Your task to perform on an android device: turn pop-ups on in chrome Image 0: 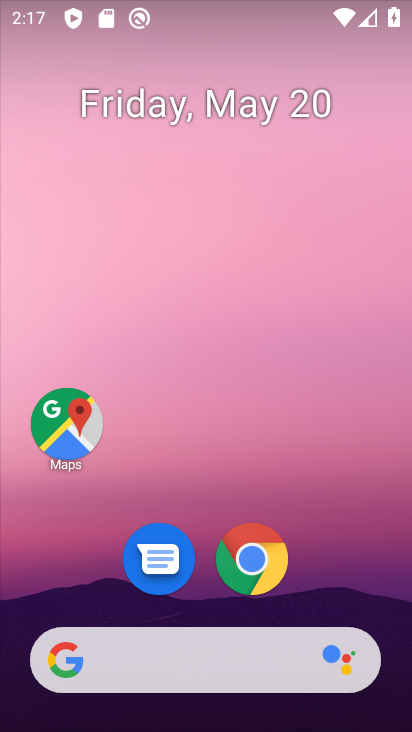
Step 0: click (250, 550)
Your task to perform on an android device: turn pop-ups on in chrome Image 1: 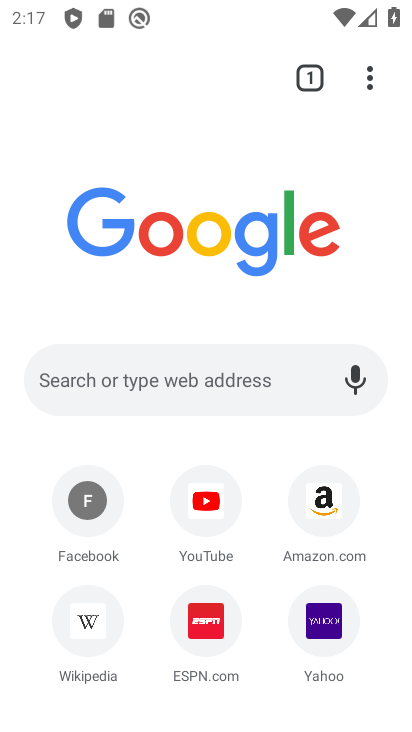
Step 1: click (371, 86)
Your task to perform on an android device: turn pop-ups on in chrome Image 2: 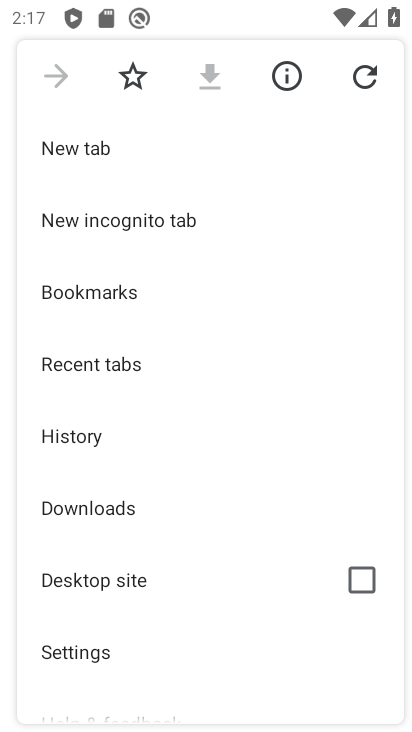
Step 2: click (109, 646)
Your task to perform on an android device: turn pop-ups on in chrome Image 3: 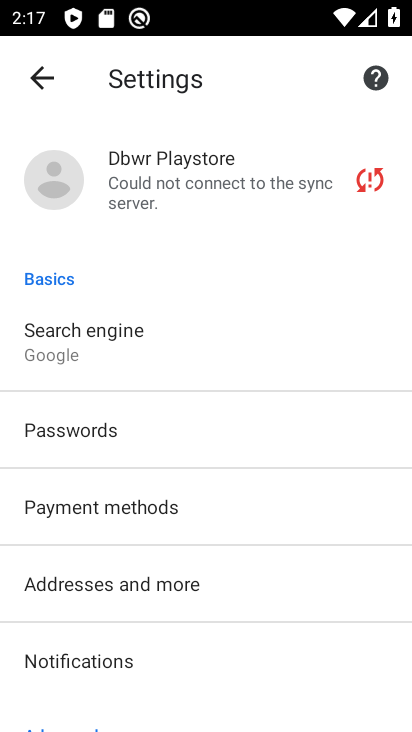
Step 3: drag from (314, 610) to (293, 391)
Your task to perform on an android device: turn pop-ups on in chrome Image 4: 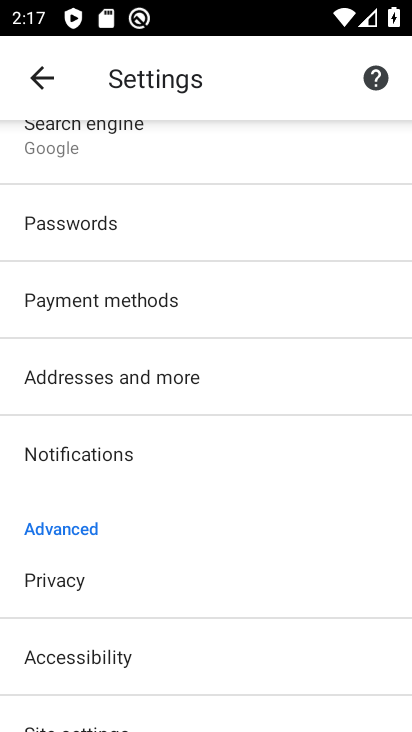
Step 4: drag from (208, 614) to (208, 328)
Your task to perform on an android device: turn pop-ups on in chrome Image 5: 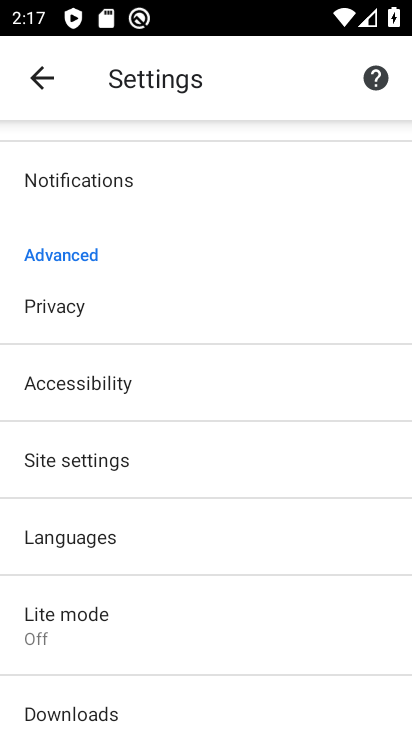
Step 5: drag from (208, 553) to (223, 353)
Your task to perform on an android device: turn pop-ups on in chrome Image 6: 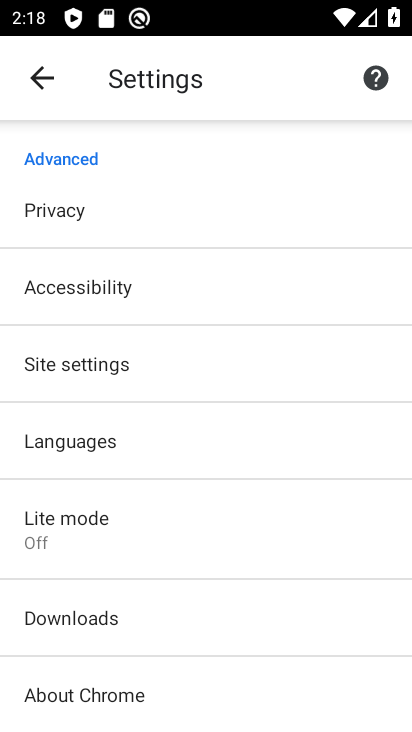
Step 6: click (223, 354)
Your task to perform on an android device: turn pop-ups on in chrome Image 7: 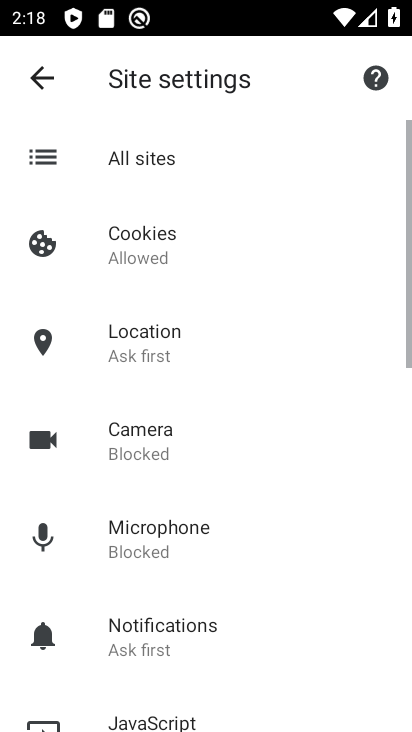
Step 7: drag from (242, 512) to (251, 222)
Your task to perform on an android device: turn pop-ups on in chrome Image 8: 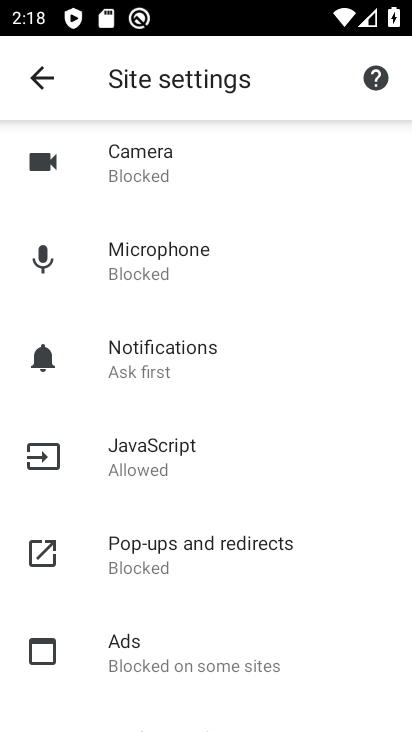
Step 8: click (229, 550)
Your task to perform on an android device: turn pop-ups on in chrome Image 9: 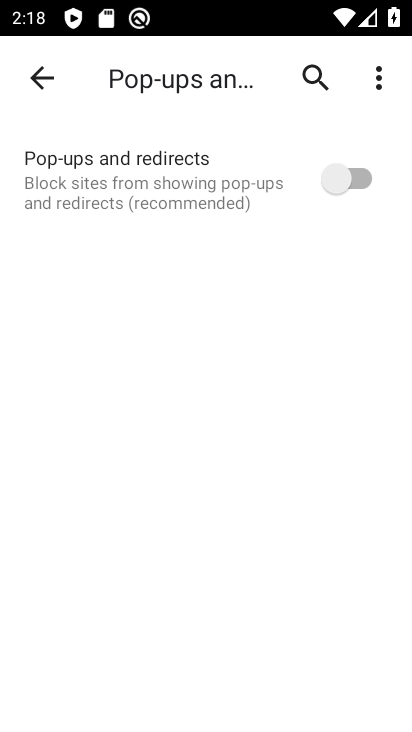
Step 9: click (349, 178)
Your task to perform on an android device: turn pop-ups on in chrome Image 10: 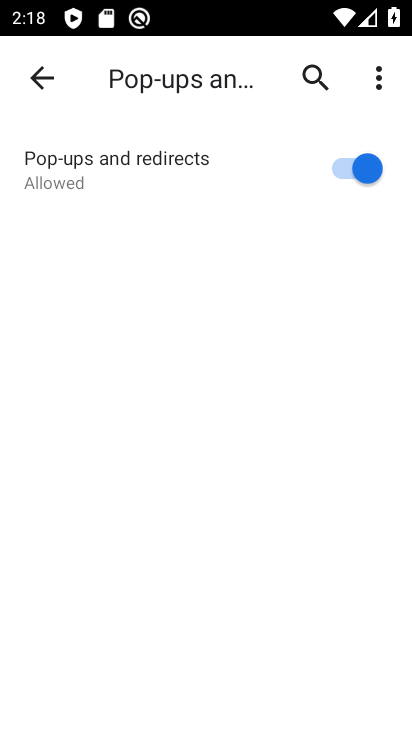
Step 10: task complete